Your task to perform on an android device: Play the last video I watched on Youtube Image 0: 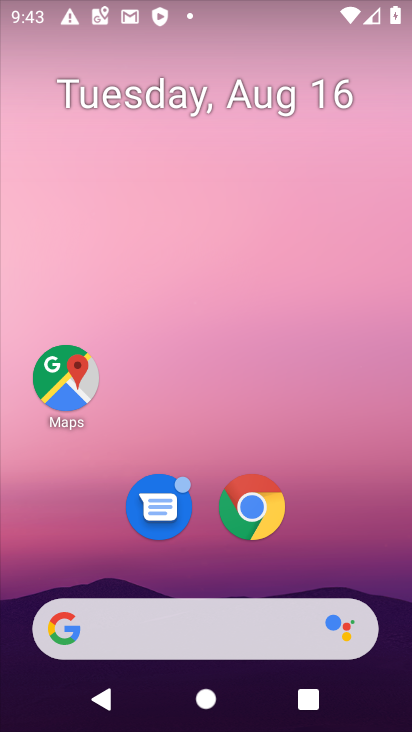
Step 0: drag from (249, 464) to (271, 37)
Your task to perform on an android device: Play the last video I watched on Youtube Image 1: 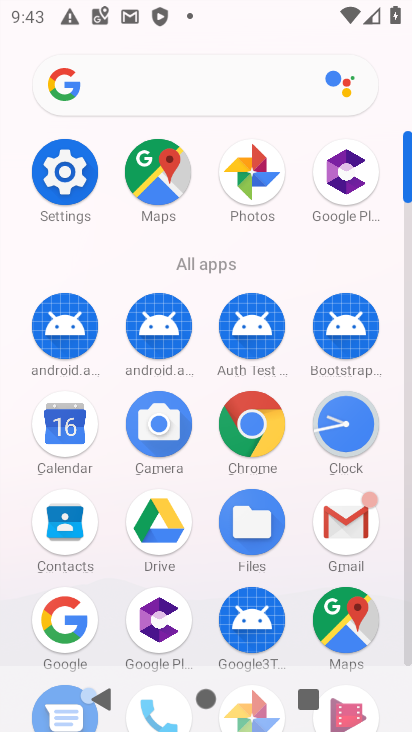
Step 1: drag from (197, 584) to (294, 58)
Your task to perform on an android device: Play the last video I watched on Youtube Image 2: 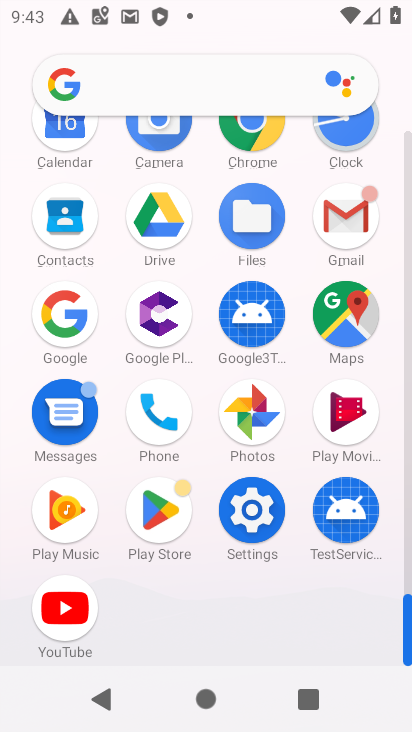
Step 2: click (62, 620)
Your task to perform on an android device: Play the last video I watched on Youtube Image 3: 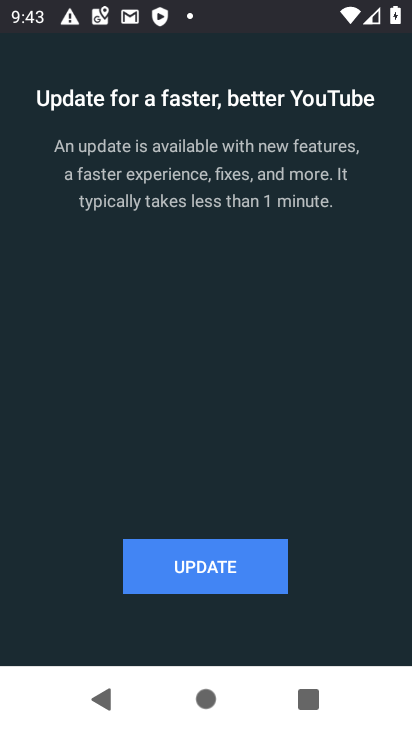
Step 3: task complete